Your task to perform on an android device: Search for Mexican restaurants on Maps Image 0: 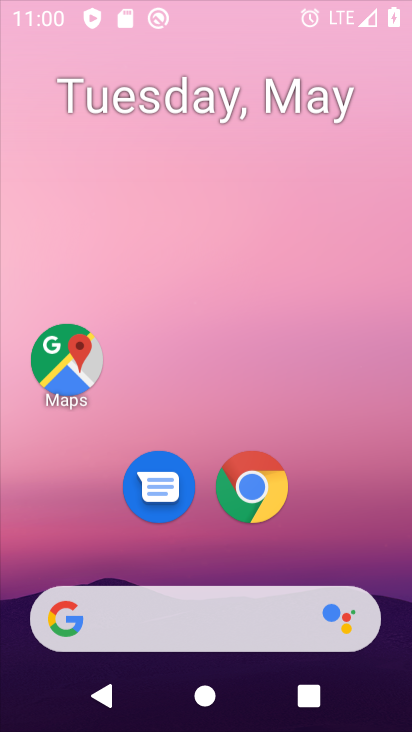
Step 0: click (320, 184)
Your task to perform on an android device: Search for Mexican restaurants on Maps Image 1: 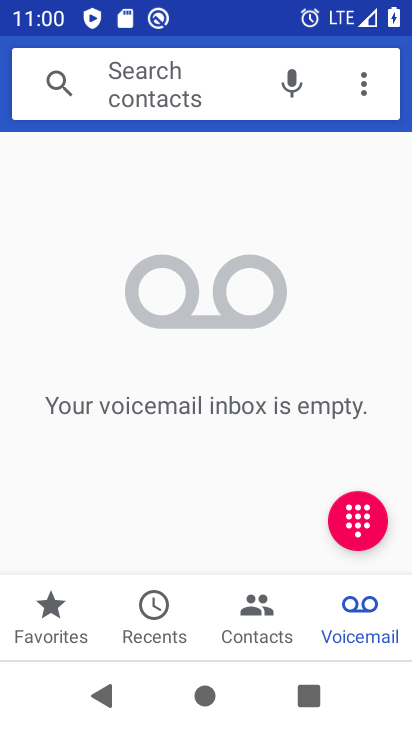
Step 1: click (270, 332)
Your task to perform on an android device: Search for Mexican restaurants on Maps Image 2: 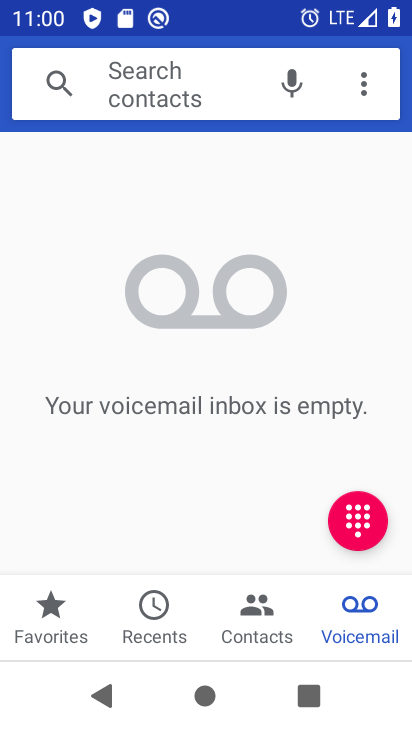
Step 2: press home button
Your task to perform on an android device: Search for Mexican restaurants on Maps Image 3: 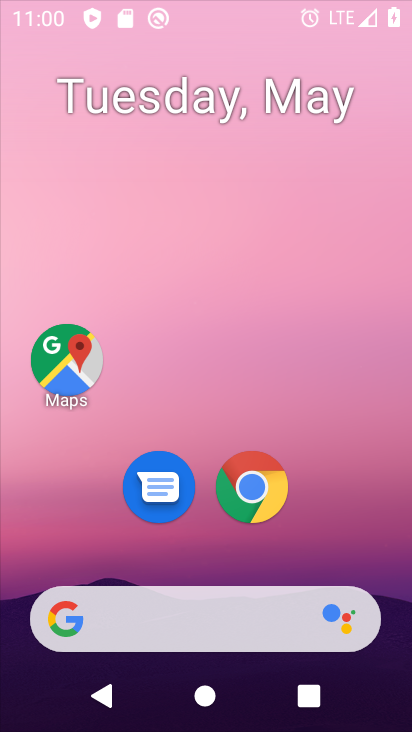
Step 3: drag from (207, 581) to (283, 38)
Your task to perform on an android device: Search for Mexican restaurants on Maps Image 4: 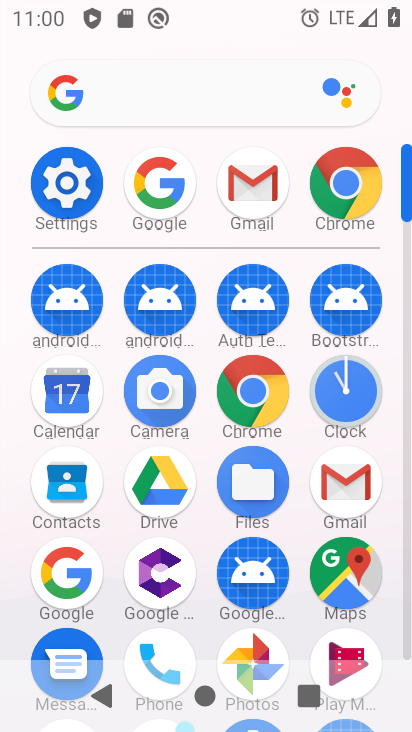
Step 4: click (338, 571)
Your task to perform on an android device: Search for Mexican restaurants on Maps Image 5: 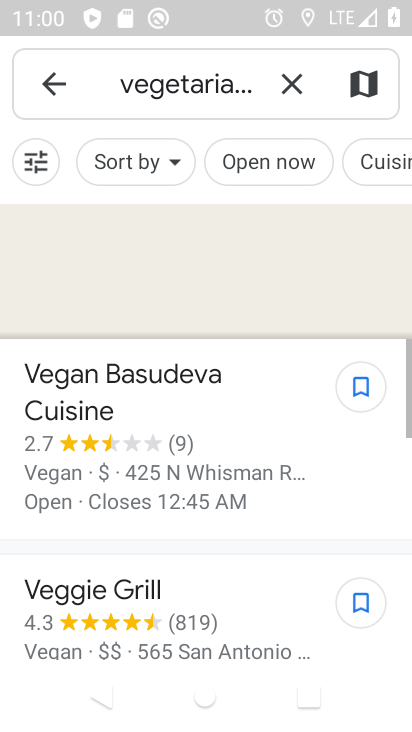
Step 5: click (196, 88)
Your task to perform on an android device: Search for Mexican restaurants on Maps Image 6: 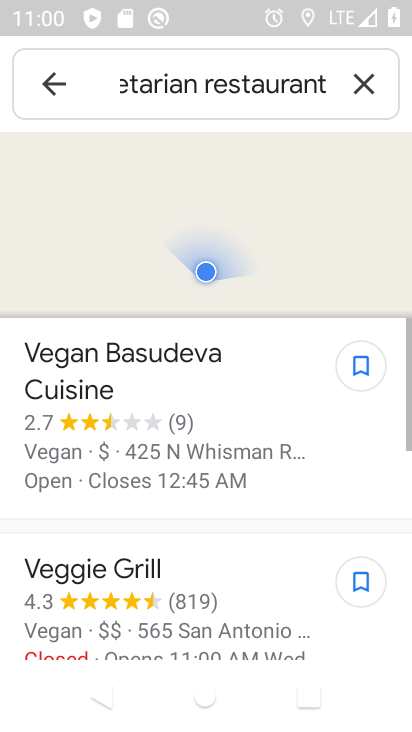
Step 6: click (297, 91)
Your task to perform on an android device: Search for Mexican restaurants on Maps Image 7: 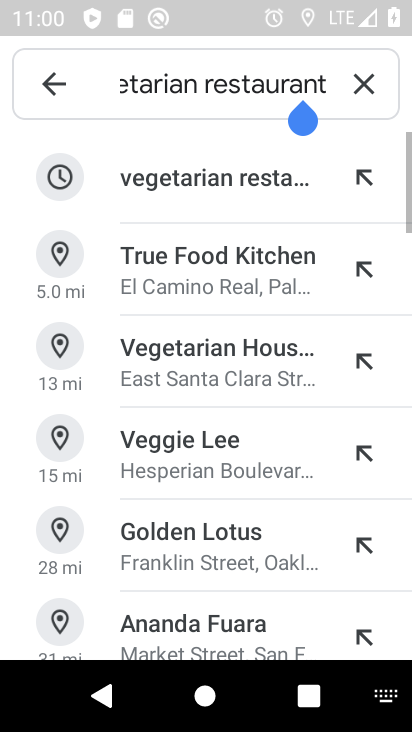
Step 7: click (362, 89)
Your task to perform on an android device: Search for Mexican restaurants on Maps Image 8: 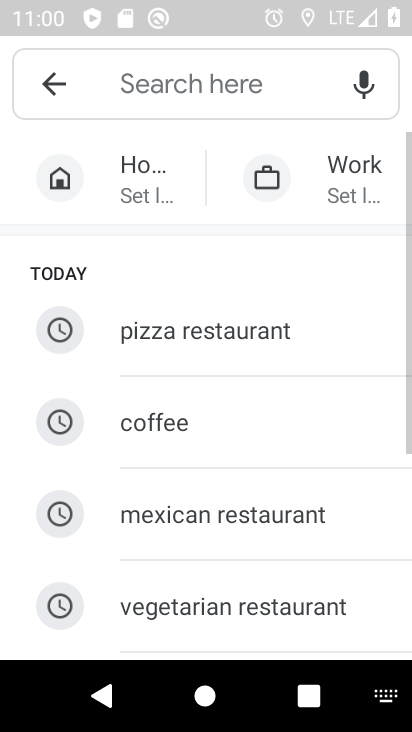
Step 8: click (157, 89)
Your task to perform on an android device: Search for Mexican restaurants on Maps Image 9: 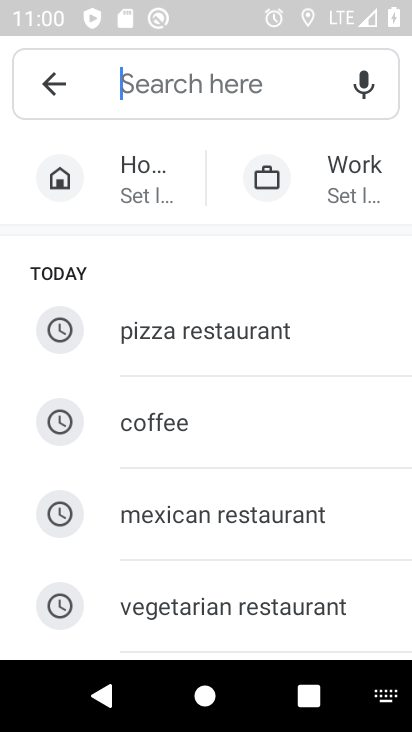
Step 9: click (201, 506)
Your task to perform on an android device: Search for Mexican restaurants on Maps Image 10: 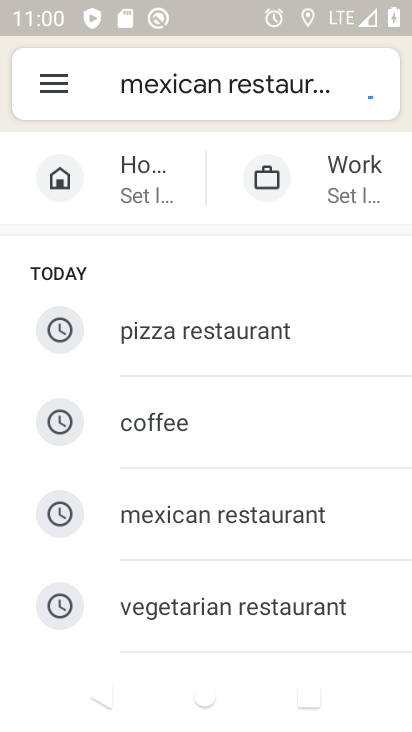
Step 10: task complete